Your task to perform on an android device: Show me popular games on the Play Store Image 0: 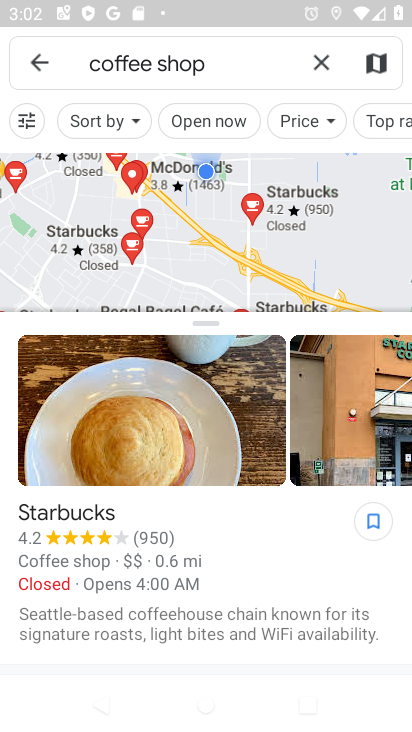
Step 0: press home button
Your task to perform on an android device: Show me popular games on the Play Store Image 1: 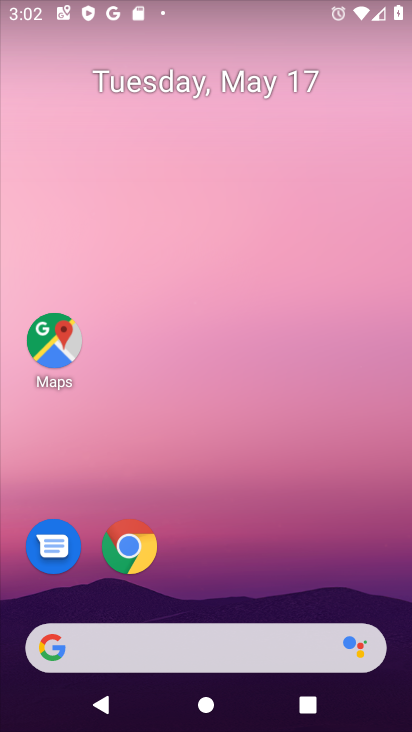
Step 1: drag from (409, 631) to (411, 571)
Your task to perform on an android device: Show me popular games on the Play Store Image 2: 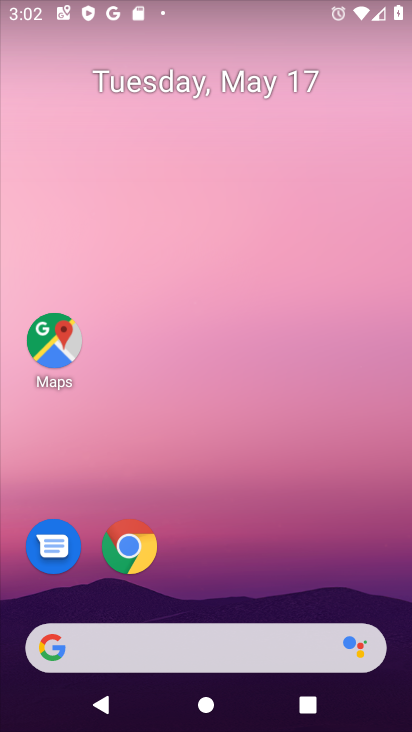
Step 2: drag from (408, 567) to (406, 346)
Your task to perform on an android device: Show me popular games on the Play Store Image 3: 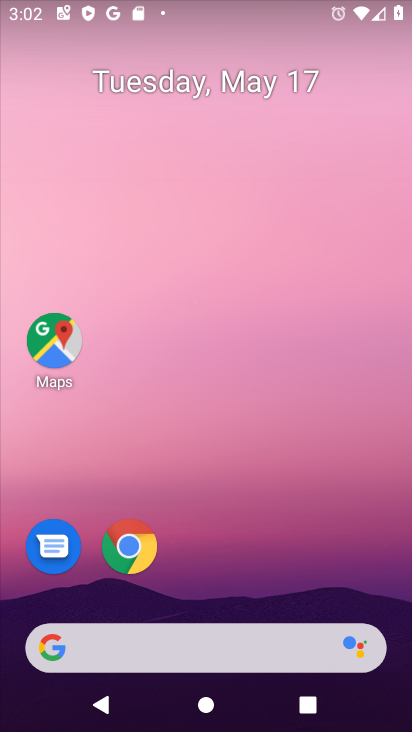
Step 3: drag from (410, 628) to (409, 245)
Your task to perform on an android device: Show me popular games on the Play Store Image 4: 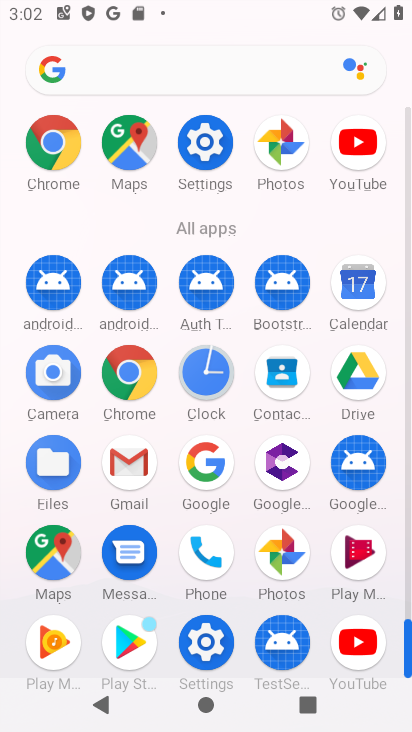
Step 4: click (121, 645)
Your task to perform on an android device: Show me popular games on the Play Store Image 5: 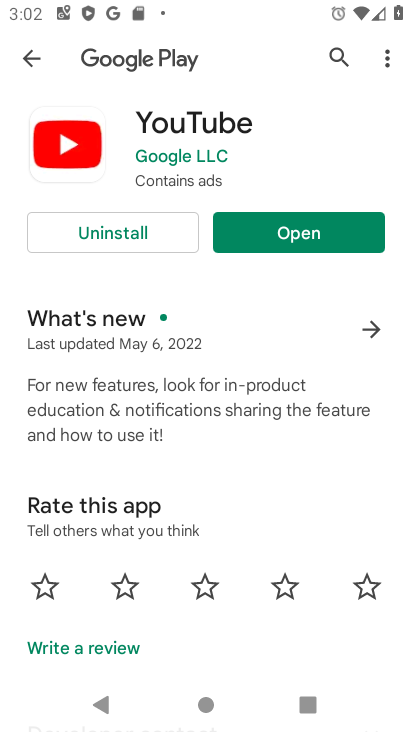
Step 5: click (275, 243)
Your task to perform on an android device: Show me popular games on the Play Store Image 6: 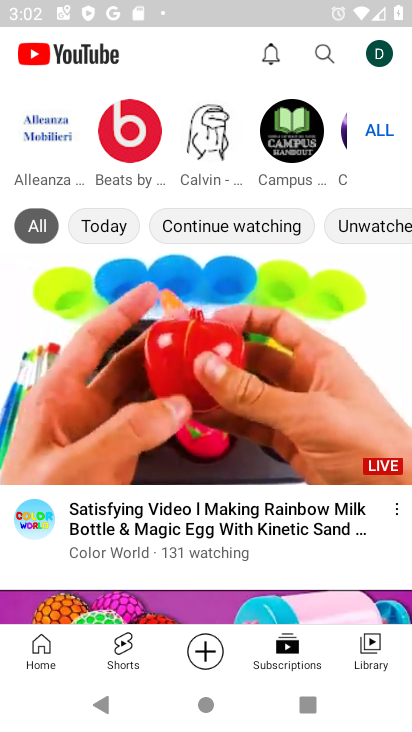
Step 6: click (326, 53)
Your task to perform on an android device: Show me popular games on the Play Store Image 7: 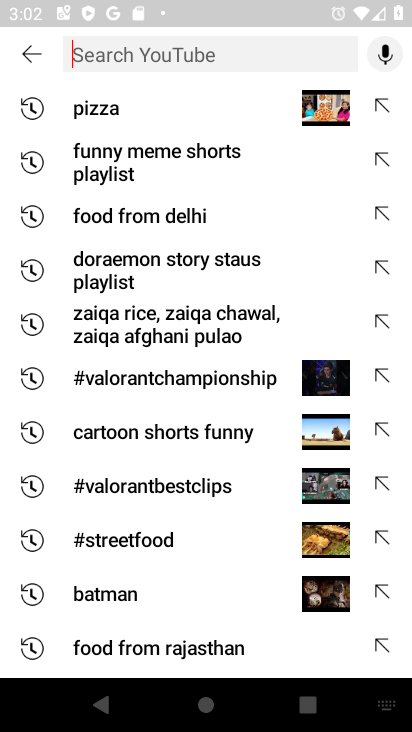
Step 7: press back button
Your task to perform on an android device: Show me popular games on the Play Store Image 8: 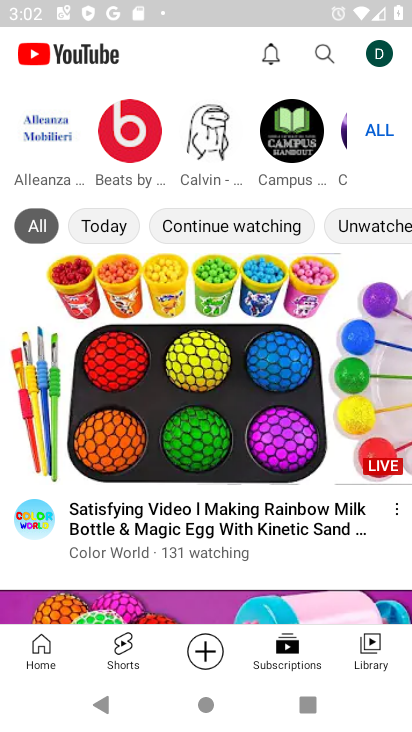
Step 8: press back button
Your task to perform on an android device: Show me popular games on the Play Store Image 9: 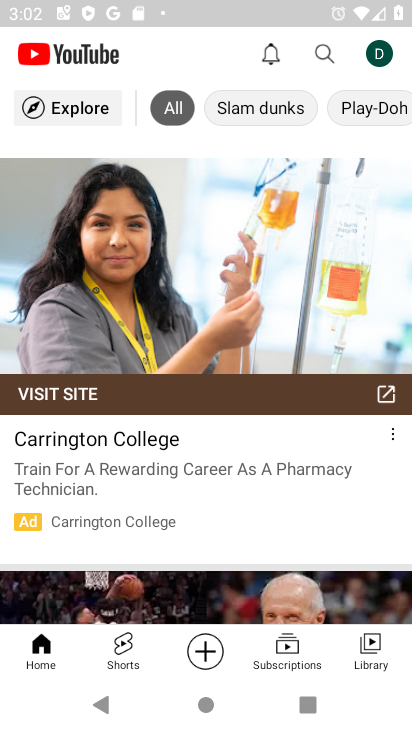
Step 9: press back button
Your task to perform on an android device: Show me popular games on the Play Store Image 10: 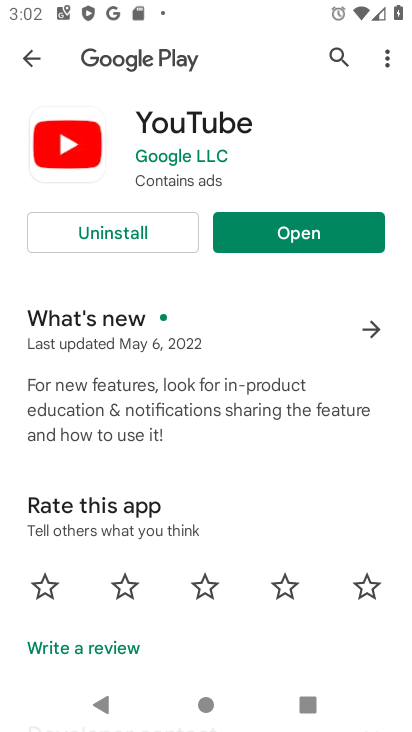
Step 10: press back button
Your task to perform on an android device: Show me popular games on the Play Store Image 11: 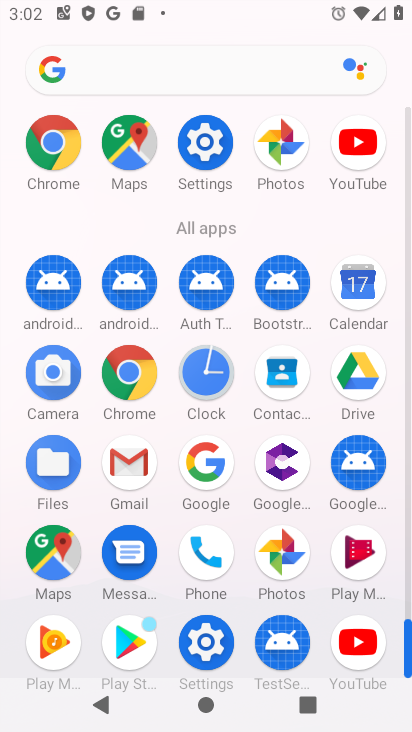
Step 11: click (135, 633)
Your task to perform on an android device: Show me popular games on the Play Store Image 12: 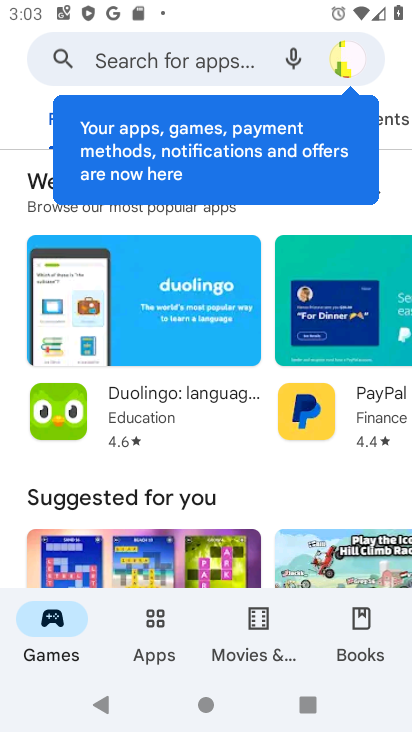
Step 12: click (241, 56)
Your task to perform on an android device: Show me popular games on the Play Store Image 13: 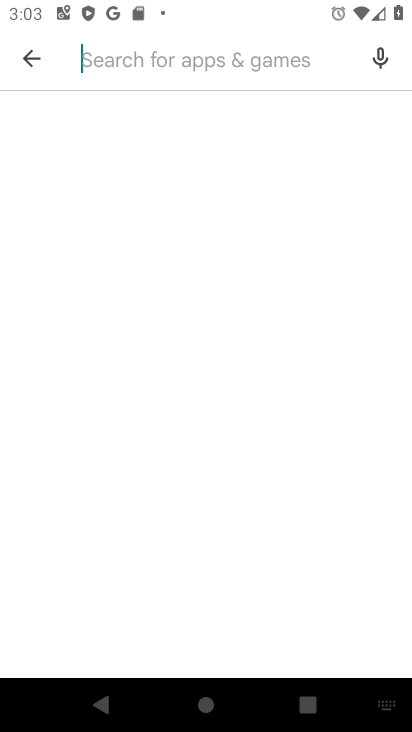
Step 13: type "popular games"
Your task to perform on an android device: Show me popular games on the Play Store Image 14: 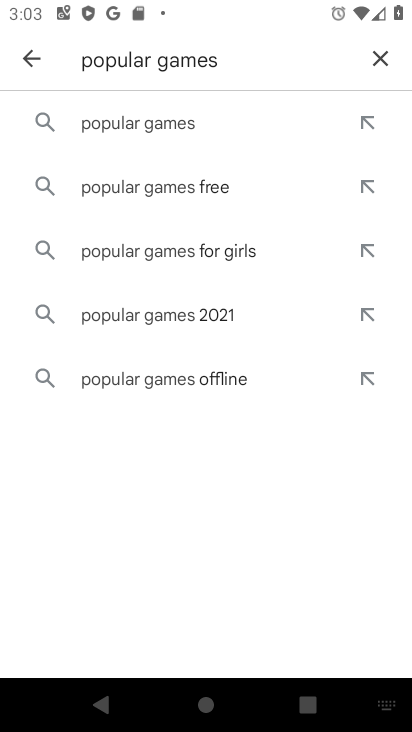
Step 14: click (148, 123)
Your task to perform on an android device: Show me popular games on the Play Store Image 15: 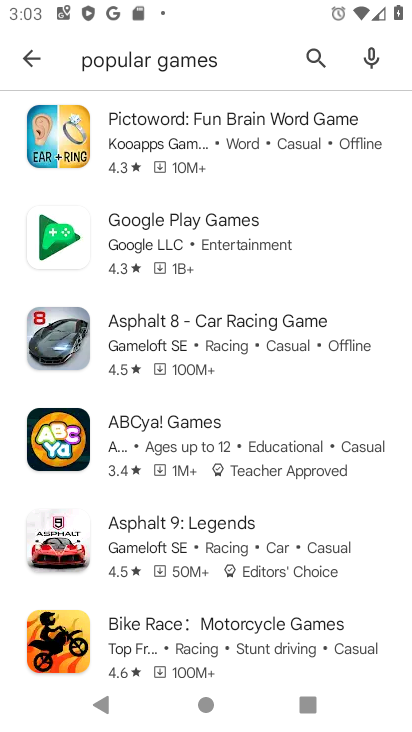
Step 15: task complete